Your task to perform on an android device: Open Amazon Image 0: 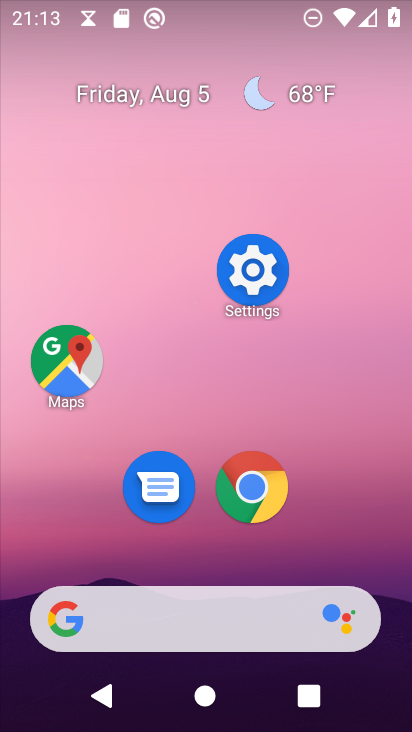
Step 0: click (259, 497)
Your task to perform on an android device: Open Amazon Image 1: 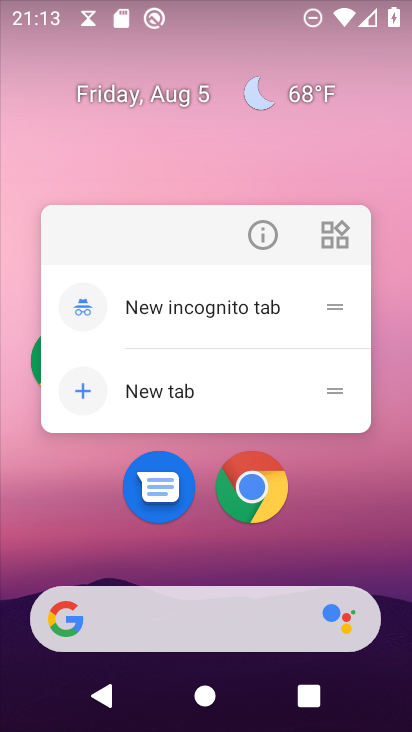
Step 1: click (257, 482)
Your task to perform on an android device: Open Amazon Image 2: 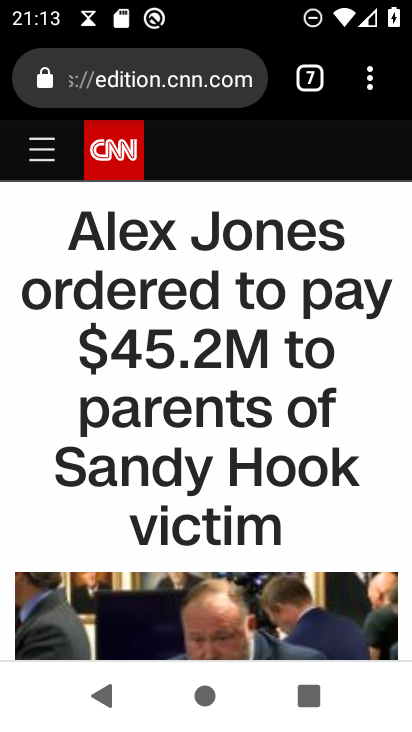
Step 2: drag from (371, 87) to (223, 162)
Your task to perform on an android device: Open Amazon Image 3: 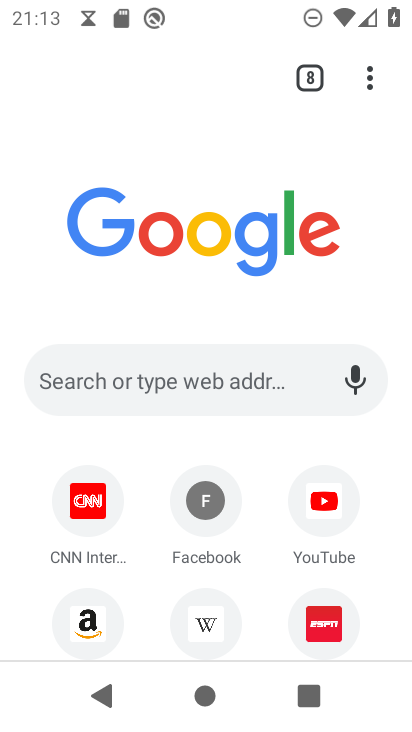
Step 3: drag from (166, 474) to (235, 131)
Your task to perform on an android device: Open Amazon Image 4: 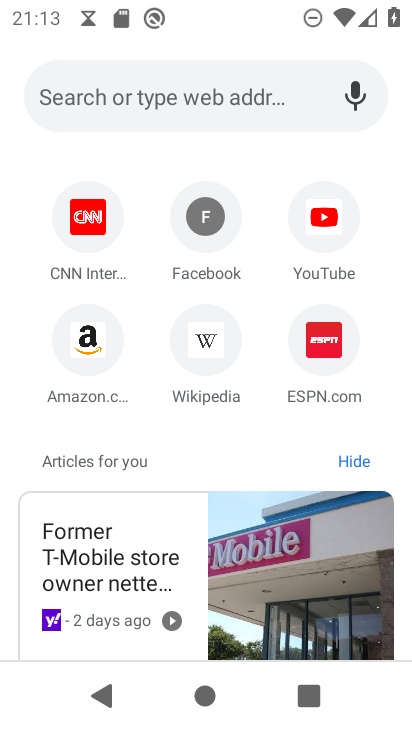
Step 4: click (83, 326)
Your task to perform on an android device: Open Amazon Image 5: 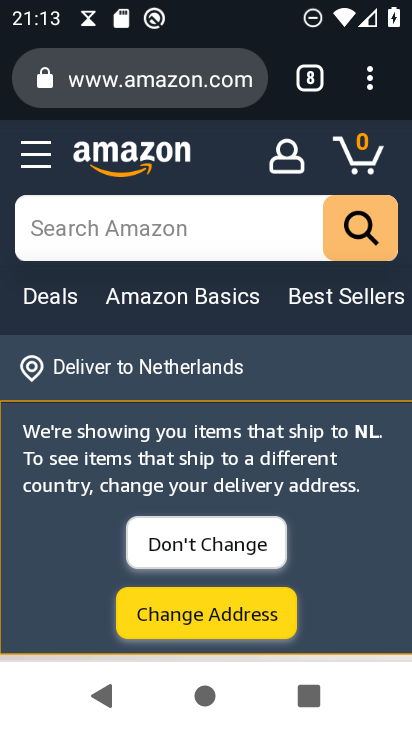
Step 5: task complete